Your task to perform on an android device: Go to Amazon Image 0: 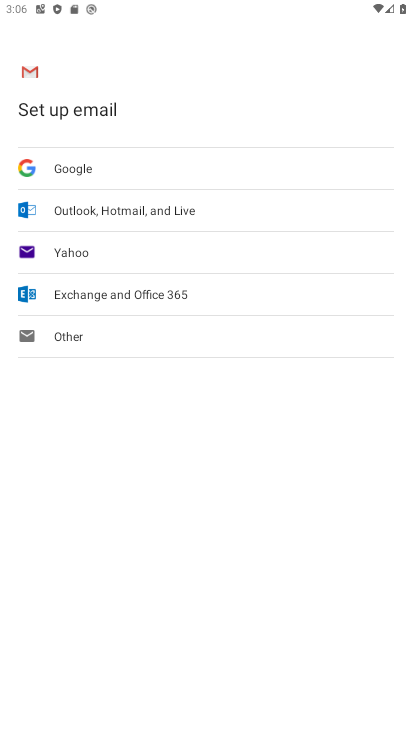
Step 0: press home button
Your task to perform on an android device: Go to Amazon Image 1: 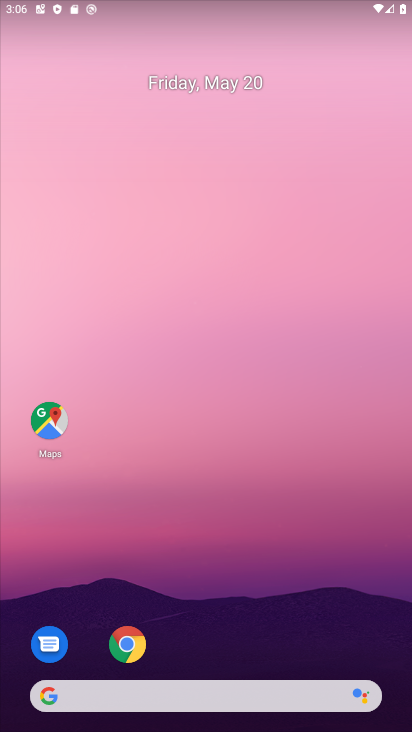
Step 1: click (129, 643)
Your task to perform on an android device: Go to Amazon Image 2: 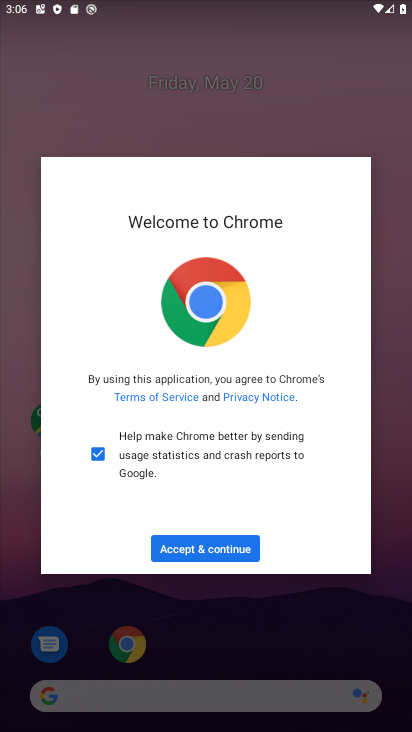
Step 2: click (209, 556)
Your task to perform on an android device: Go to Amazon Image 3: 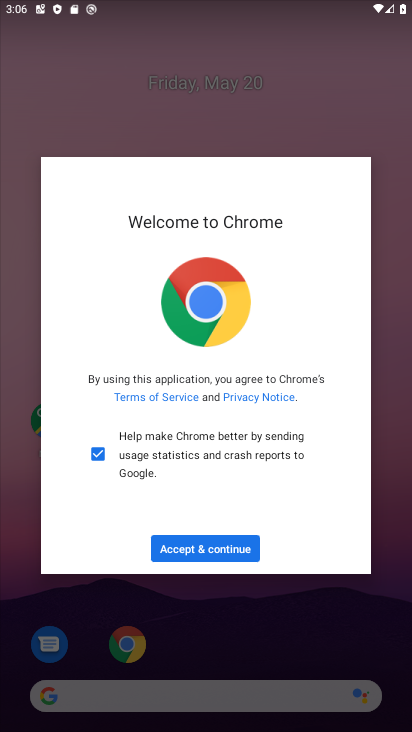
Step 3: click (209, 556)
Your task to perform on an android device: Go to Amazon Image 4: 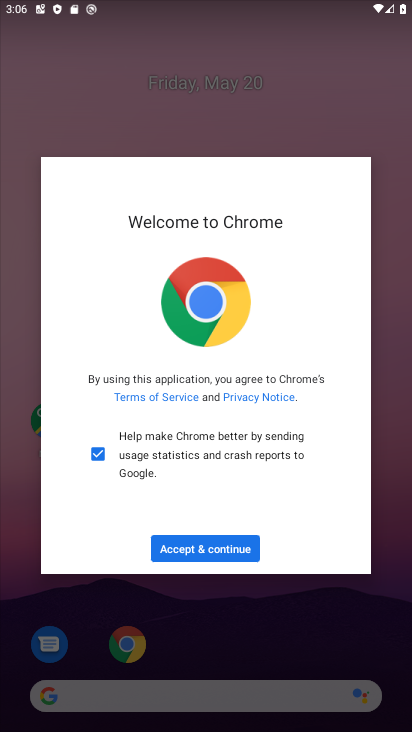
Step 4: click (209, 556)
Your task to perform on an android device: Go to Amazon Image 5: 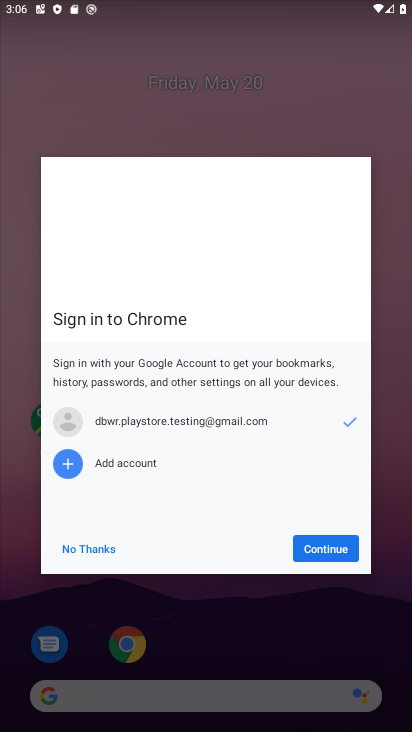
Step 5: click (296, 553)
Your task to perform on an android device: Go to Amazon Image 6: 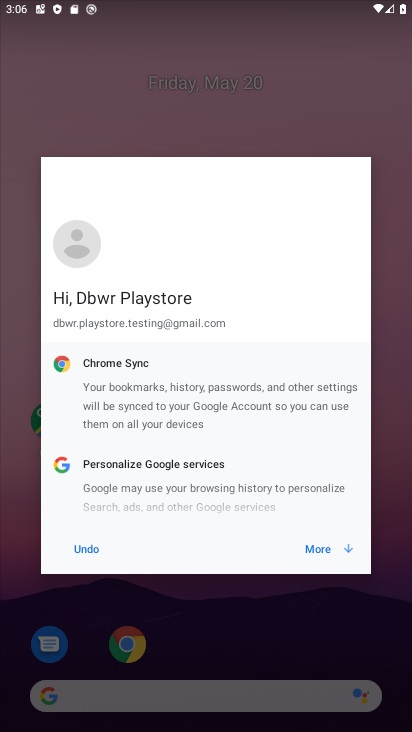
Step 6: click (296, 553)
Your task to perform on an android device: Go to Amazon Image 7: 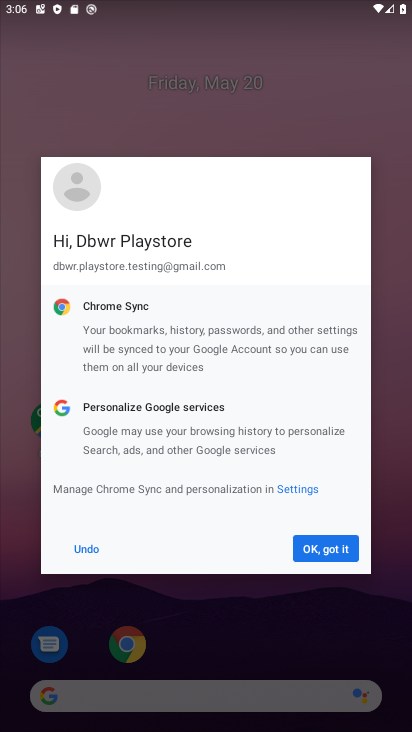
Step 7: click (296, 553)
Your task to perform on an android device: Go to Amazon Image 8: 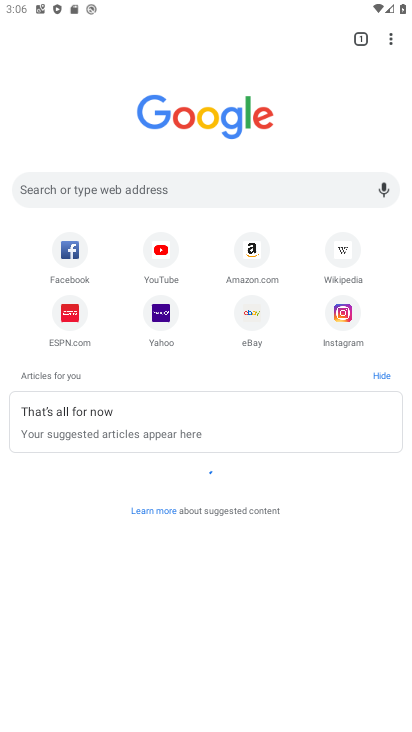
Step 8: click (237, 249)
Your task to perform on an android device: Go to Amazon Image 9: 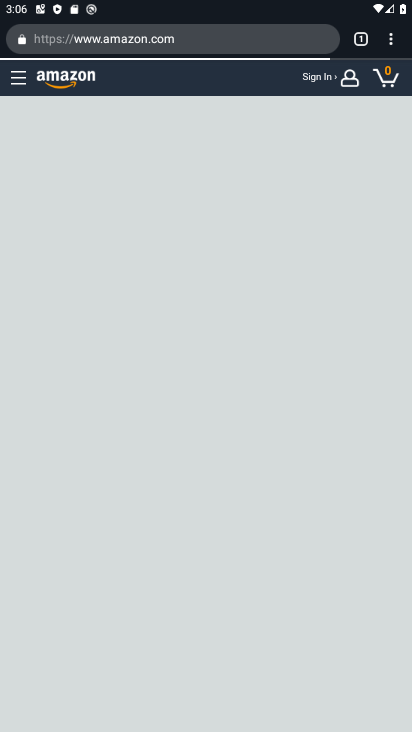
Step 9: task complete